Your task to perform on an android device: toggle improve location accuracy Image 0: 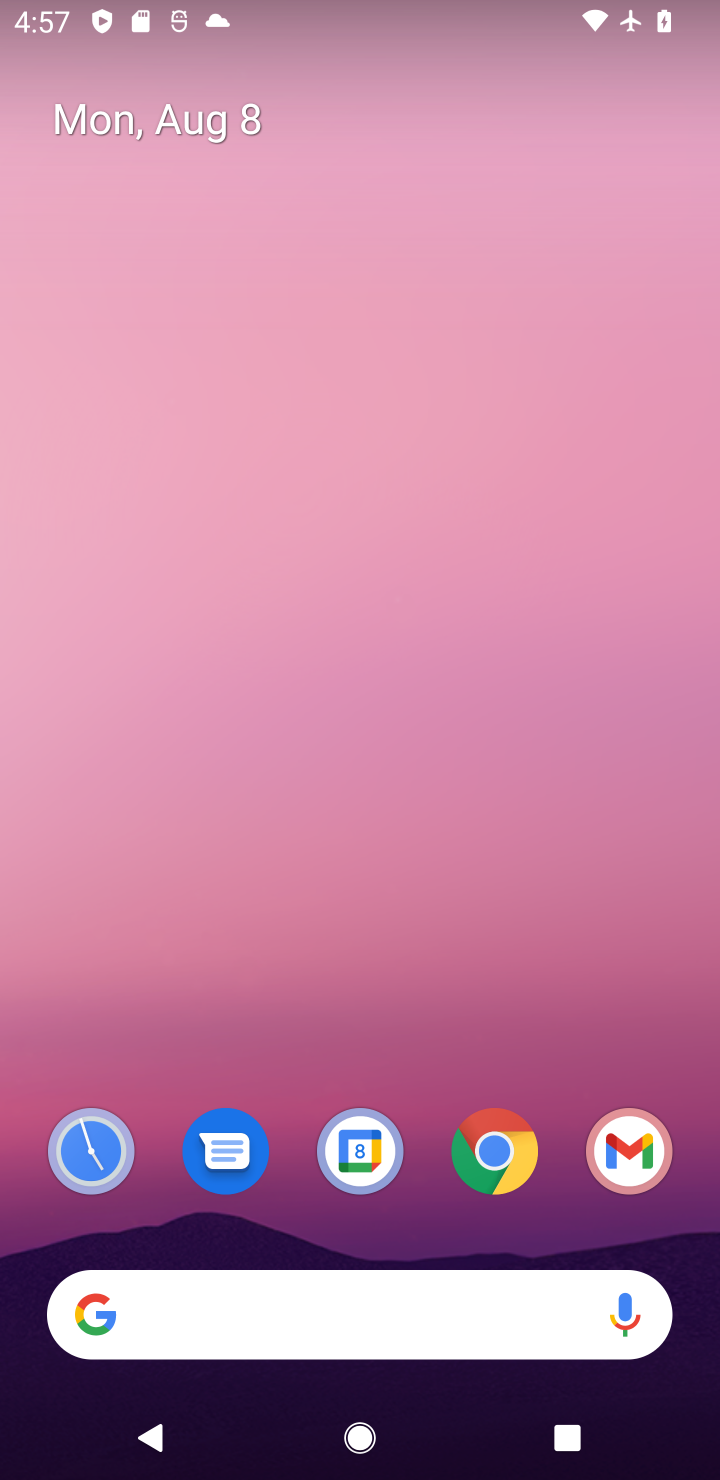
Step 0: drag from (338, 901) to (283, 221)
Your task to perform on an android device: toggle improve location accuracy Image 1: 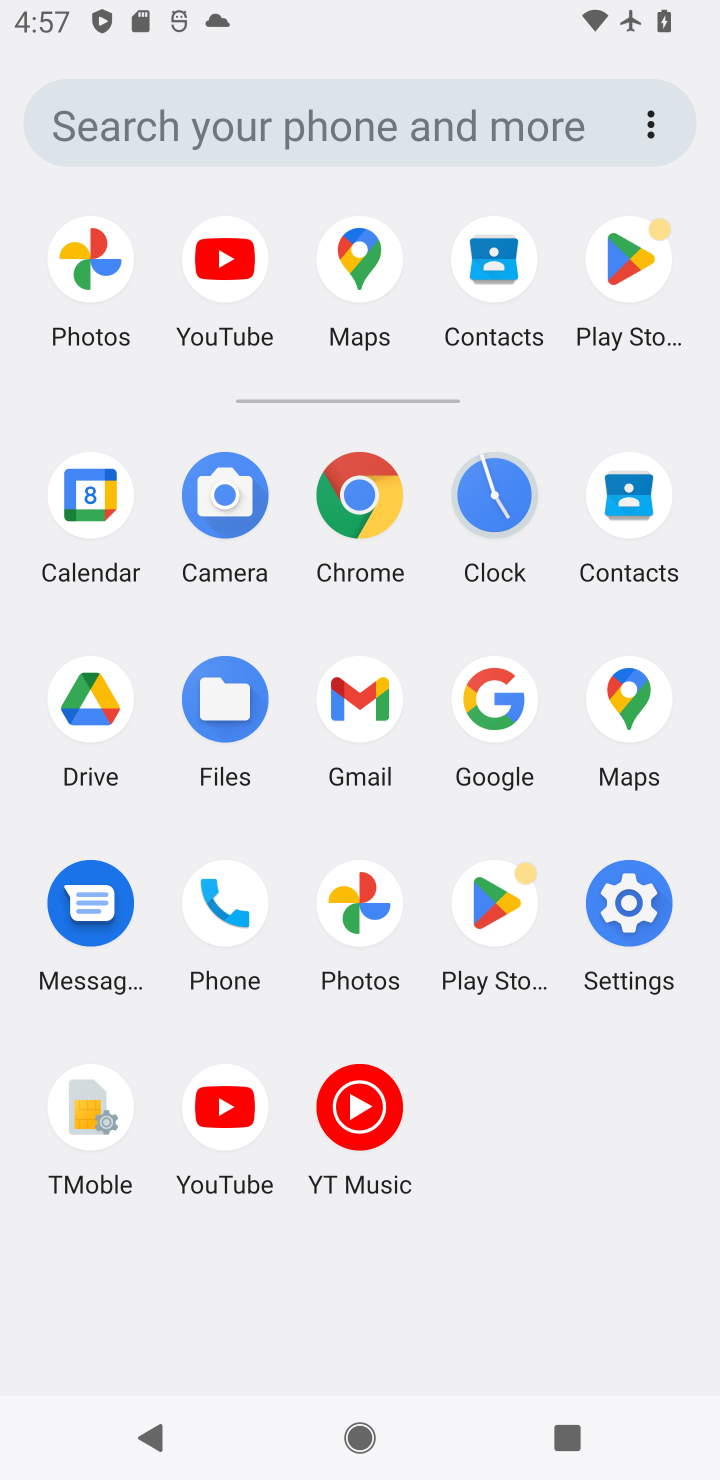
Step 1: click (589, 896)
Your task to perform on an android device: toggle improve location accuracy Image 2: 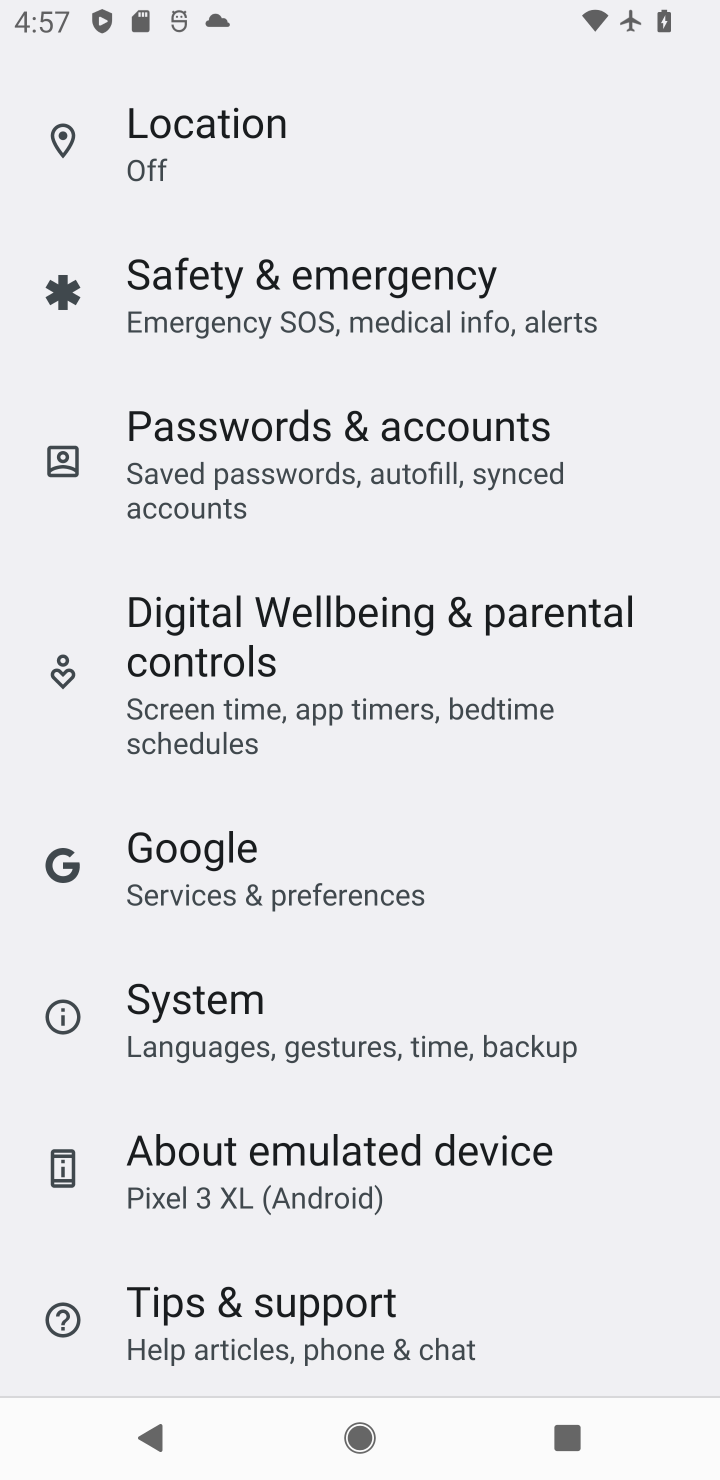
Step 2: click (223, 154)
Your task to perform on an android device: toggle improve location accuracy Image 3: 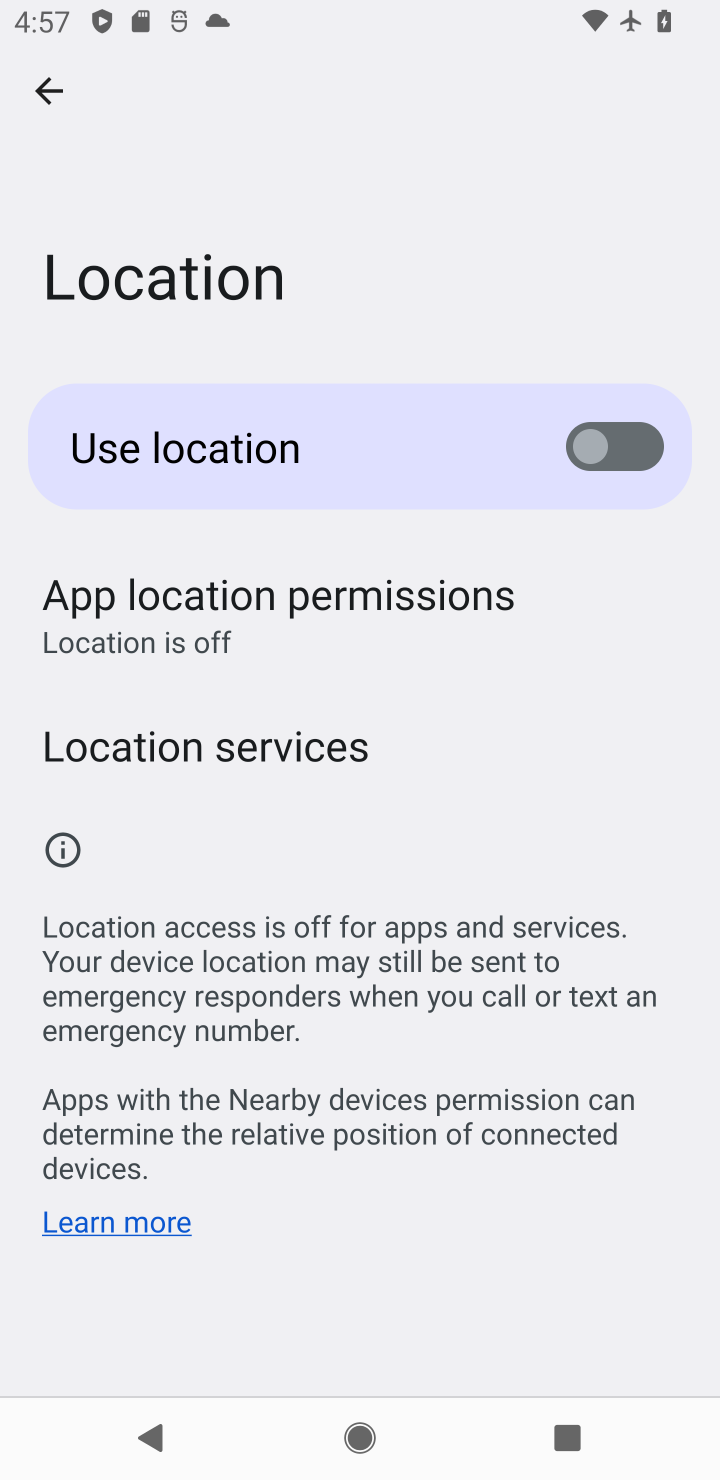
Step 3: drag from (269, 1247) to (272, 529)
Your task to perform on an android device: toggle improve location accuracy Image 4: 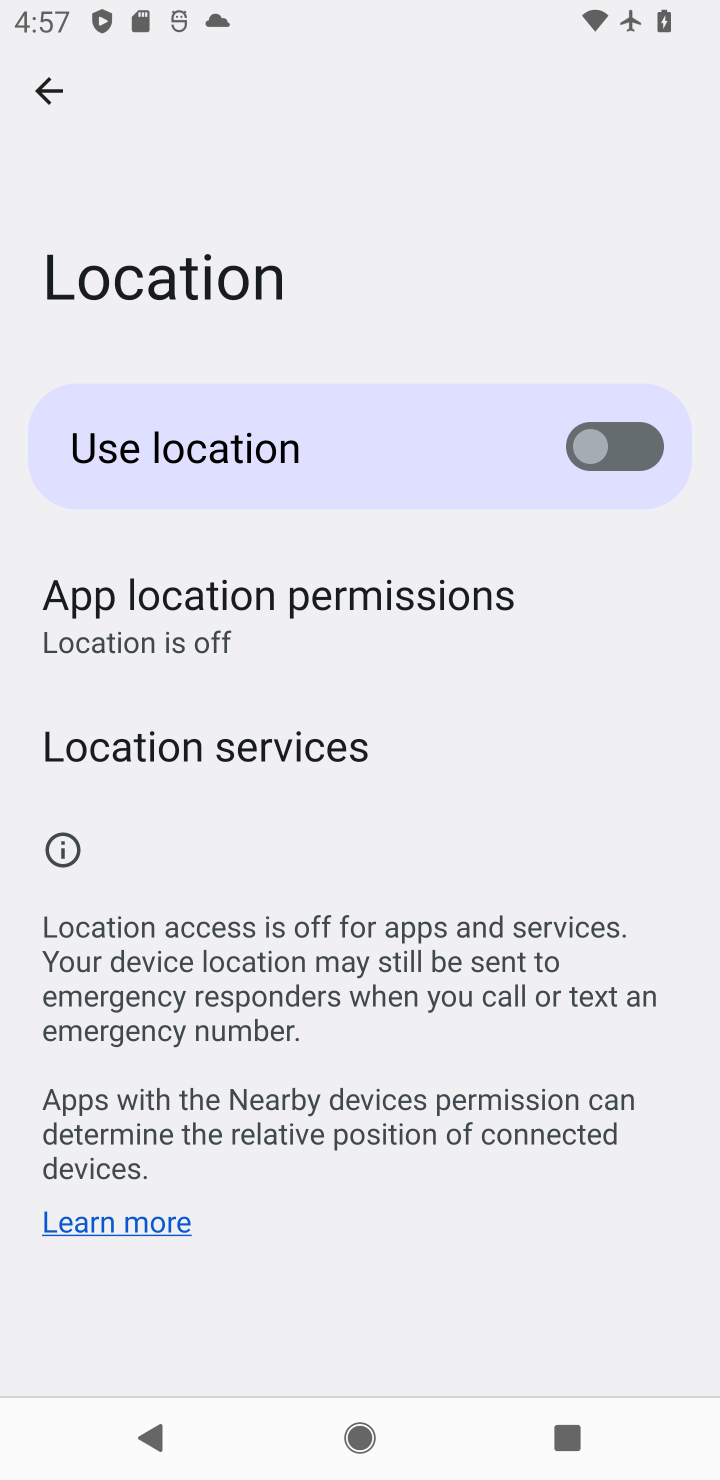
Step 4: drag from (305, 715) to (366, 1146)
Your task to perform on an android device: toggle improve location accuracy Image 5: 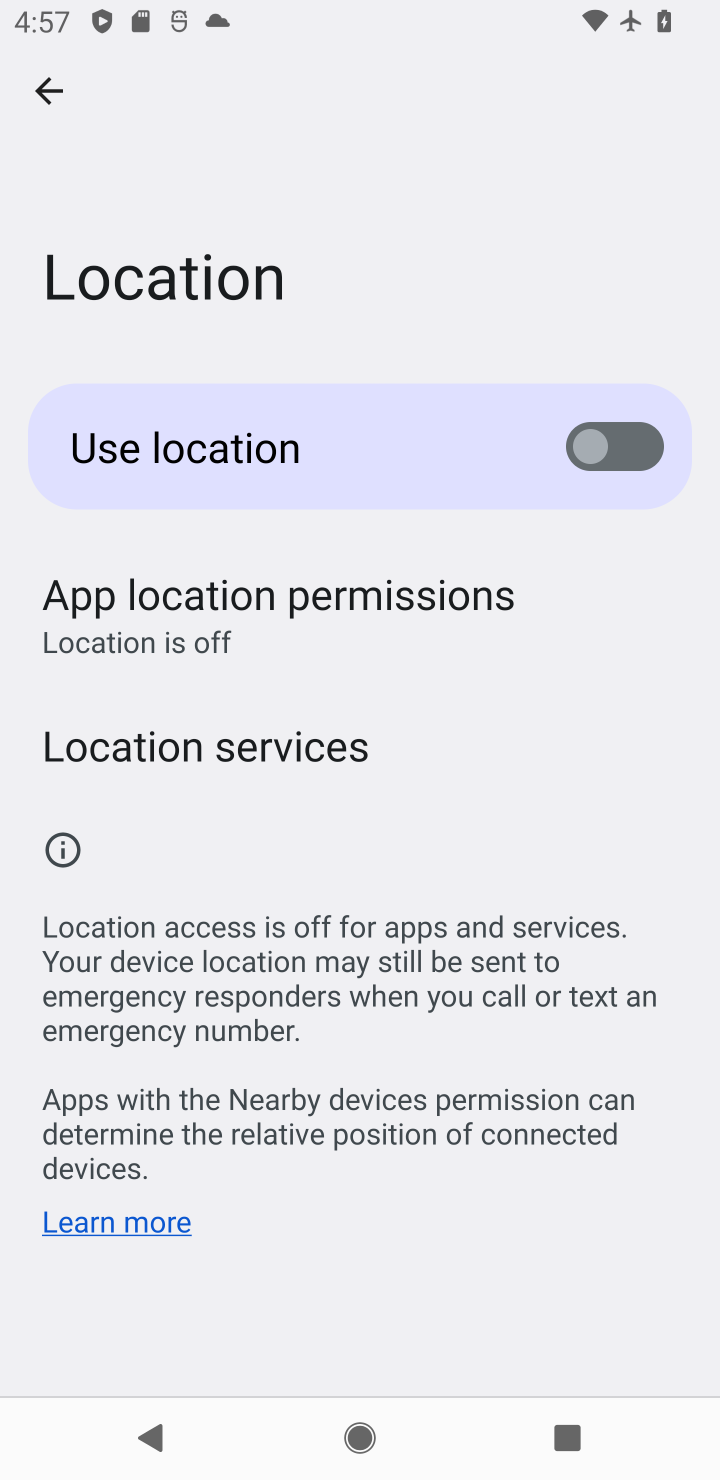
Step 5: click (355, 766)
Your task to perform on an android device: toggle improve location accuracy Image 6: 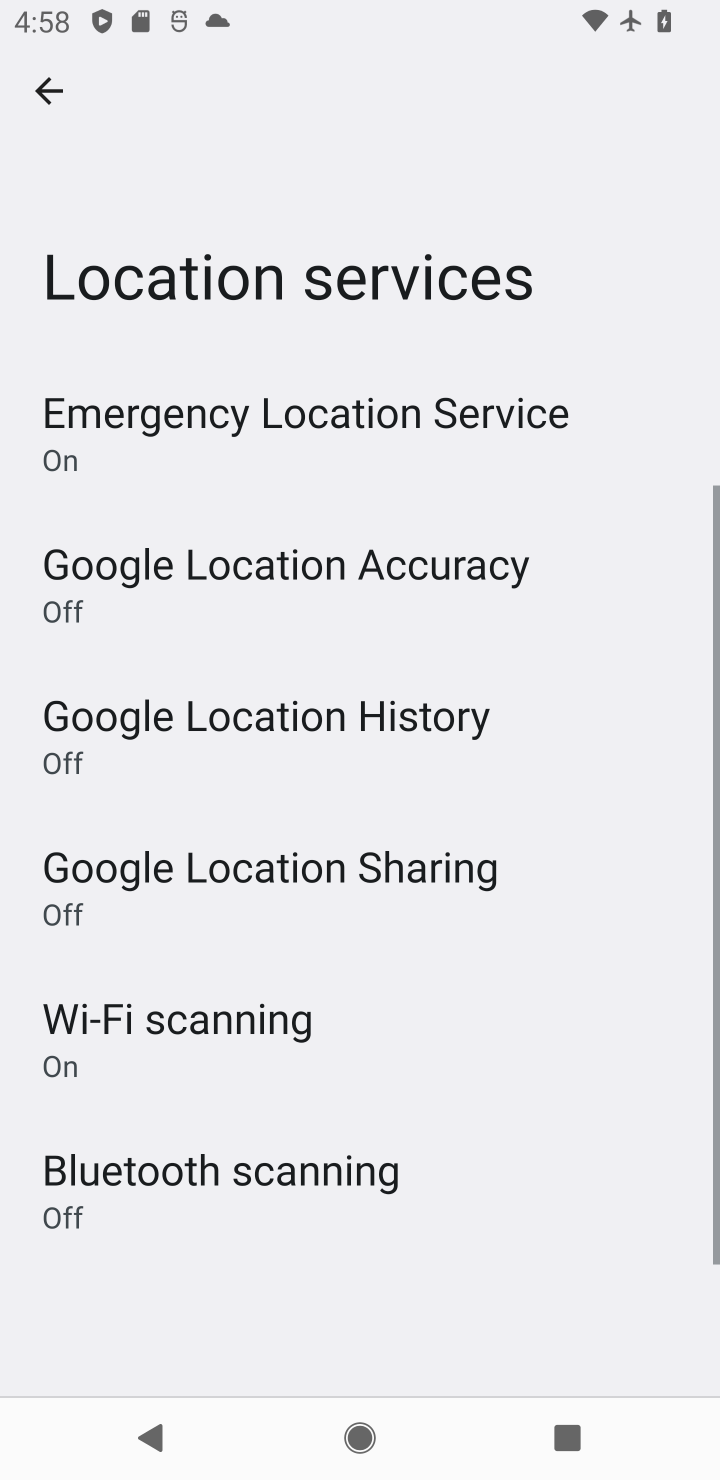
Step 6: click (311, 591)
Your task to perform on an android device: toggle improve location accuracy Image 7: 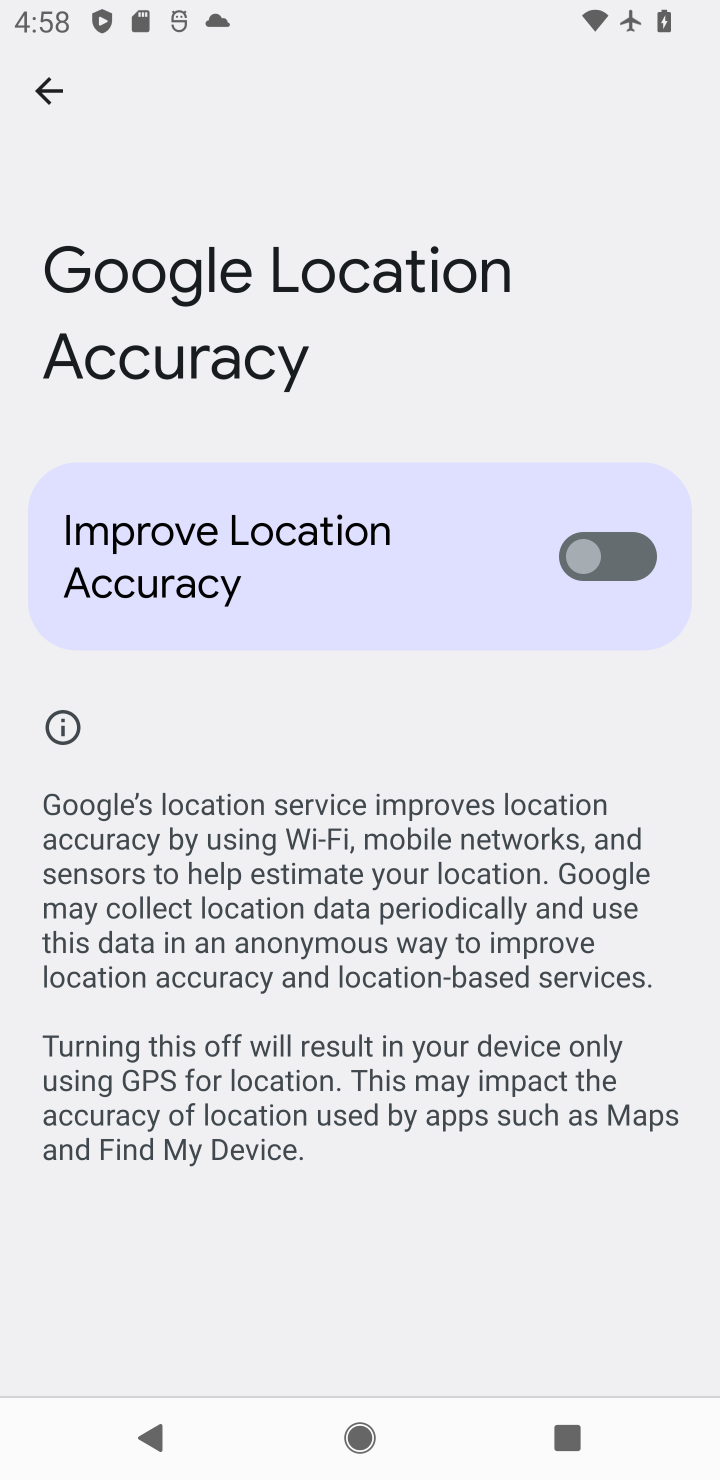
Step 7: click (646, 557)
Your task to perform on an android device: toggle improve location accuracy Image 8: 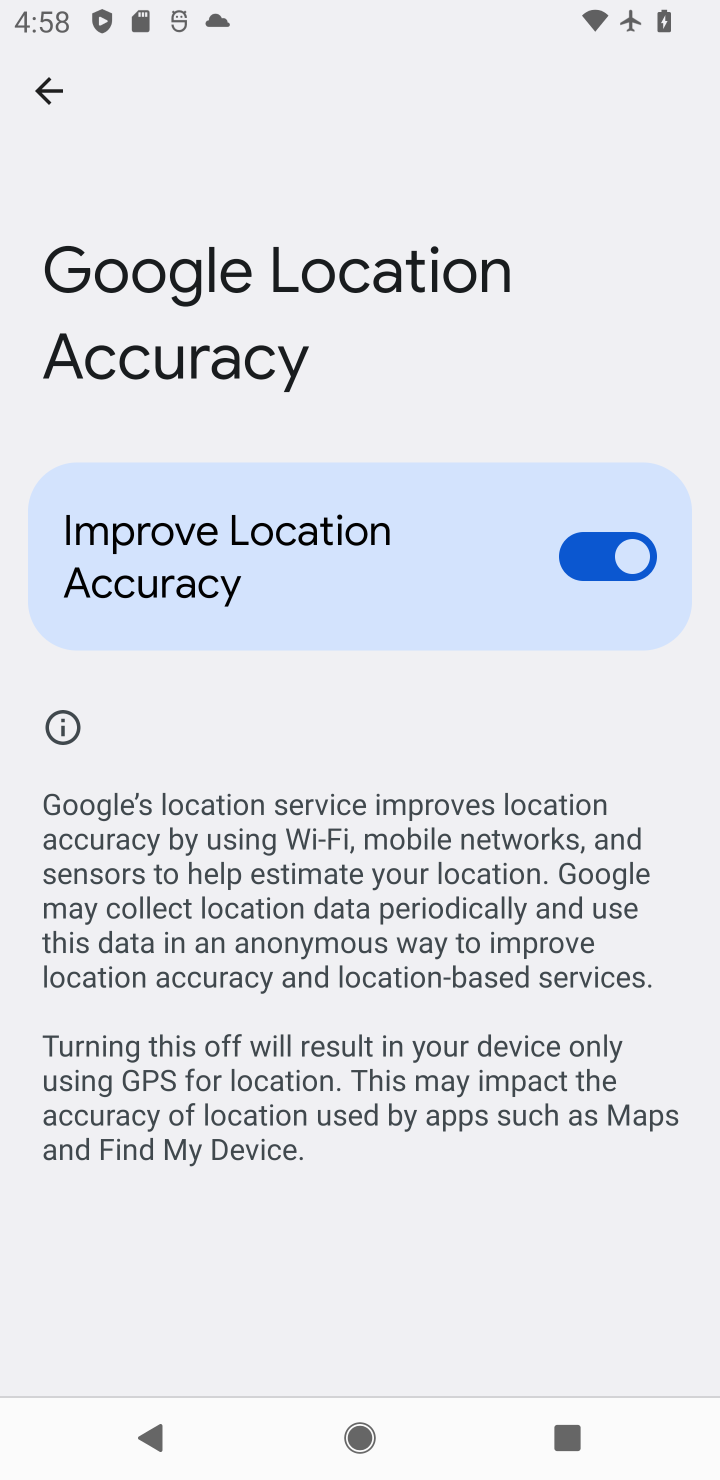
Step 8: task complete